Your task to perform on an android device: Do I have any events today? Image 0: 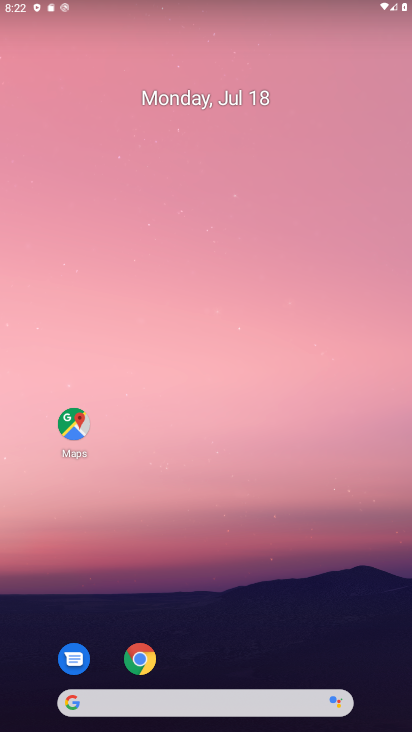
Step 0: click (202, 302)
Your task to perform on an android device: Do I have any events today? Image 1: 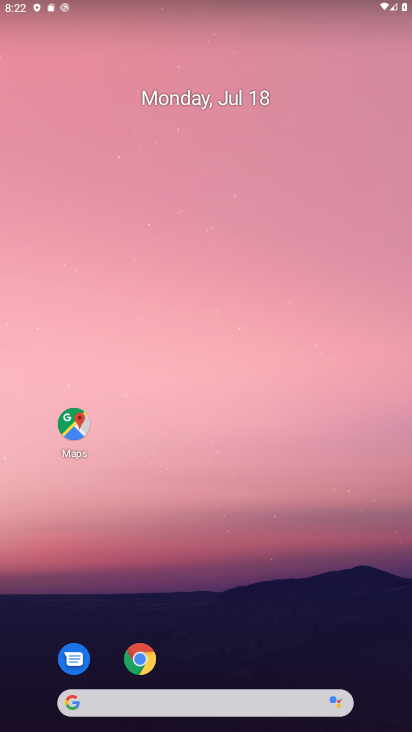
Step 1: drag from (241, 648) to (205, 154)
Your task to perform on an android device: Do I have any events today? Image 2: 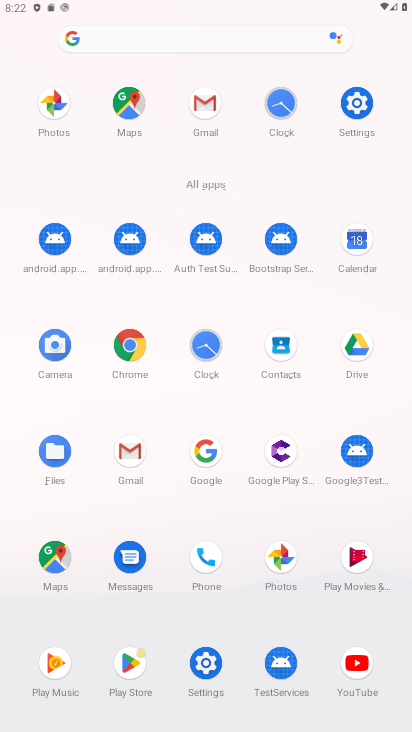
Step 2: drag from (259, 423) to (227, 117)
Your task to perform on an android device: Do I have any events today? Image 3: 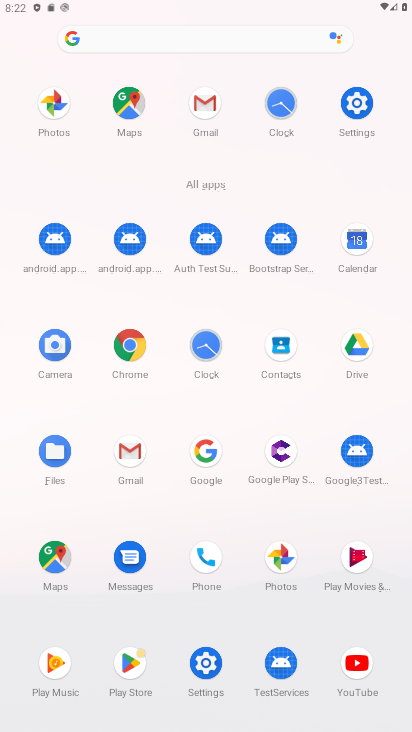
Step 3: click (356, 231)
Your task to perform on an android device: Do I have any events today? Image 4: 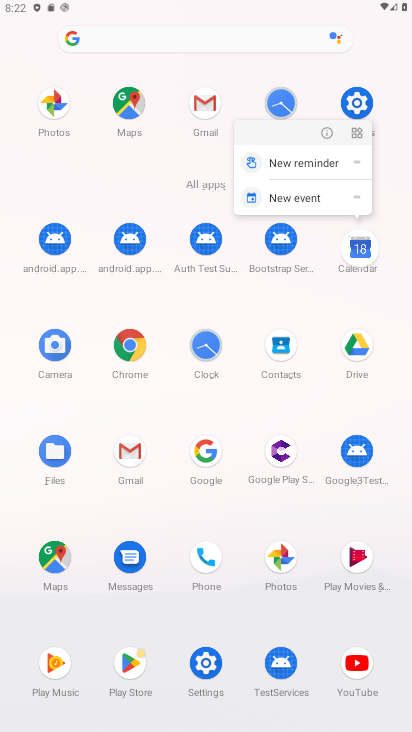
Step 4: click (359, 240)
Your task to perform on an android device: Do I have any events today? Image 5: 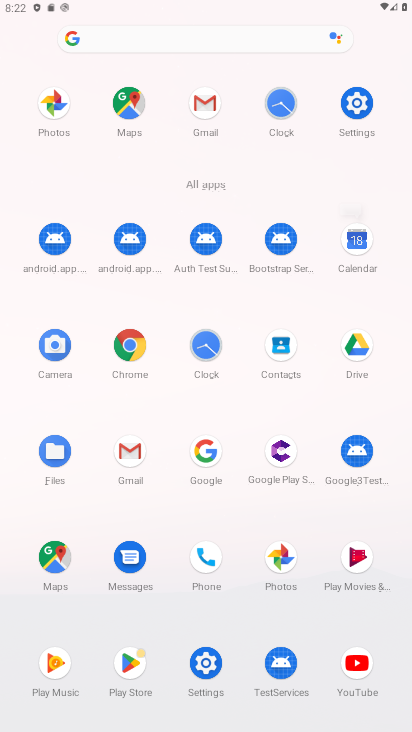
Step 5: click (356, 244)
Your task to perform on an android device: Do I have any events today? Image 6: 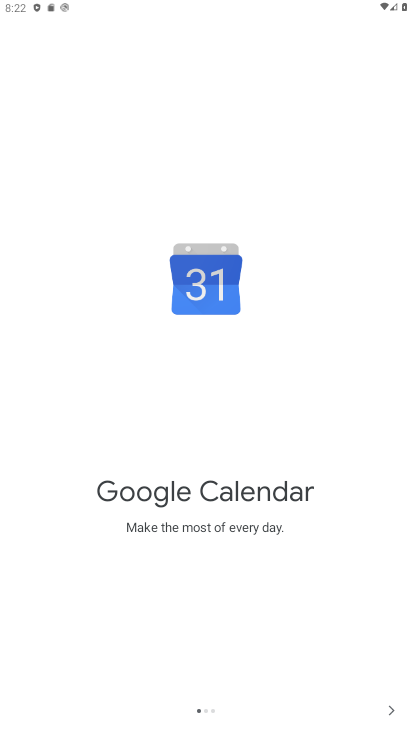
Step 6: click (390, 709)
Your task to perform on an android device: Do I have any events today? Image 7: 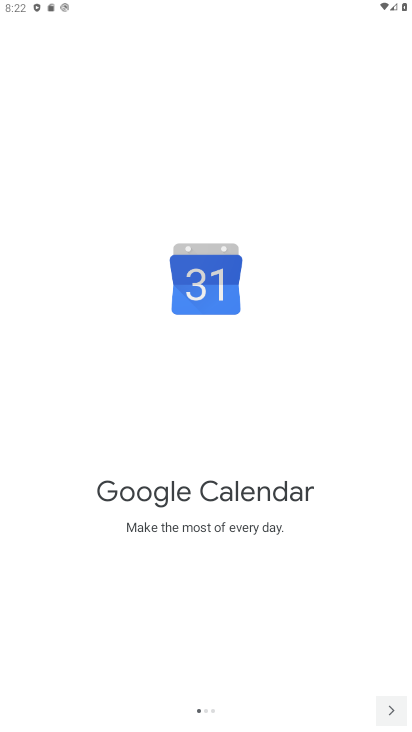
Step 7: click (390, 709)
Your task to perform on an android device: Do I have any events today? Image 8: 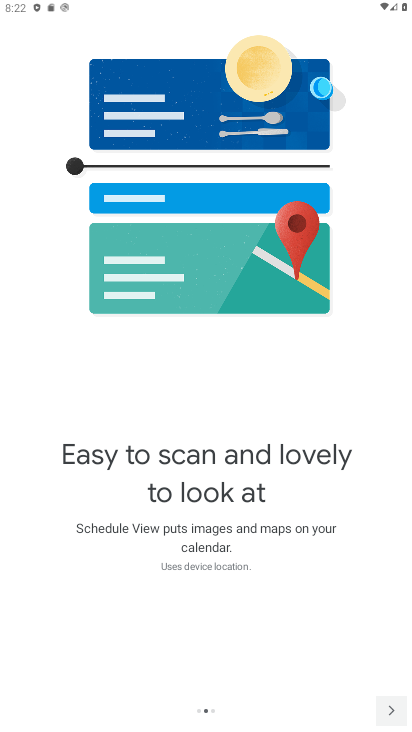
Step 8: click (389, 710)
Your task to perform on an android device: Do I have any events today? Image 9: 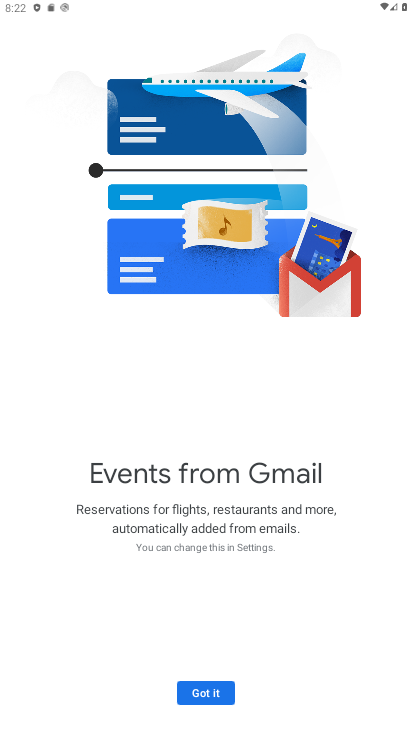
Step 9: click (388, 710)
Your task to perform on an android device: Do I have any events today? Image 10: 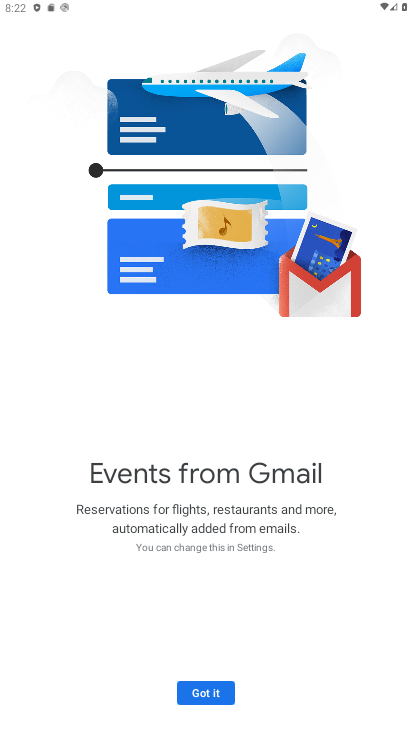
Step 10: click (219, 693)
Your task to perform on an android device: Do I have any events today? Image 11: 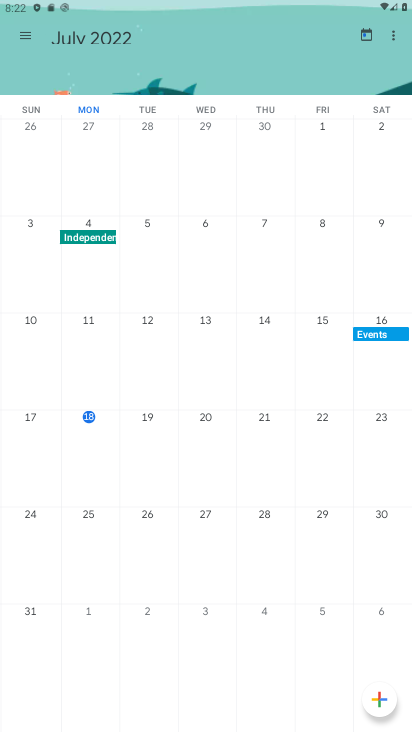
Step 11: click (146, 407)
Your task to perform on an android device: Do I have any events today? Image 12: 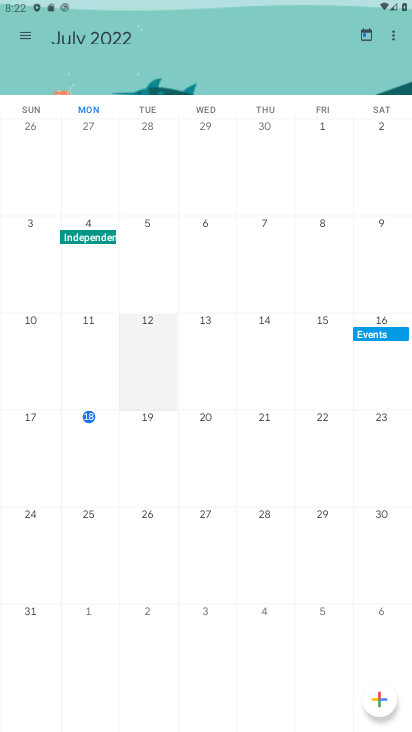
Step 12: click (146, 414)
Your task to perform on an android device: Do I have any events today? Image 13: 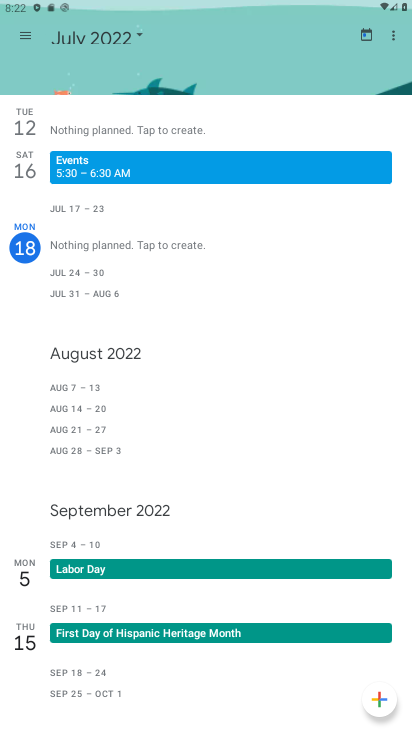
Step 13: click (146, 414)
Your task to perform on an android device: Do I have any events today? Image 14: 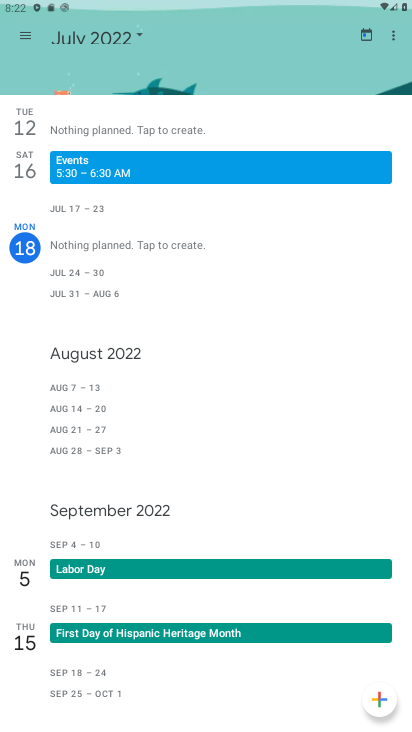
Step 14: task complete